Your task to perform on an android device: change notification settings in the gmail app Image 0: 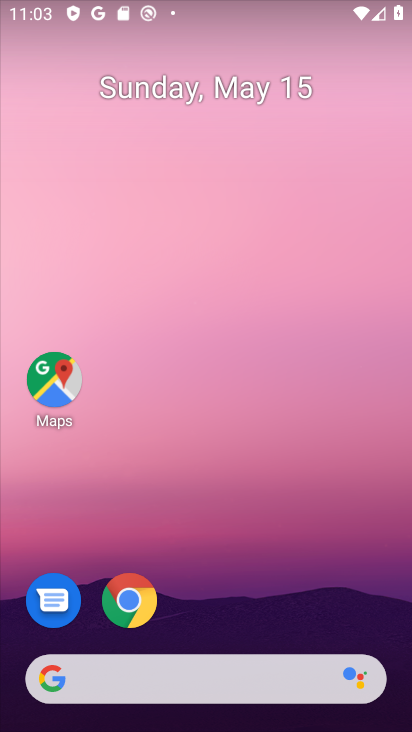
Step 0: drag from (214, 666) to (173, 65)
Your task to perform on an android device: change notification settings in the gmail app Image 1: 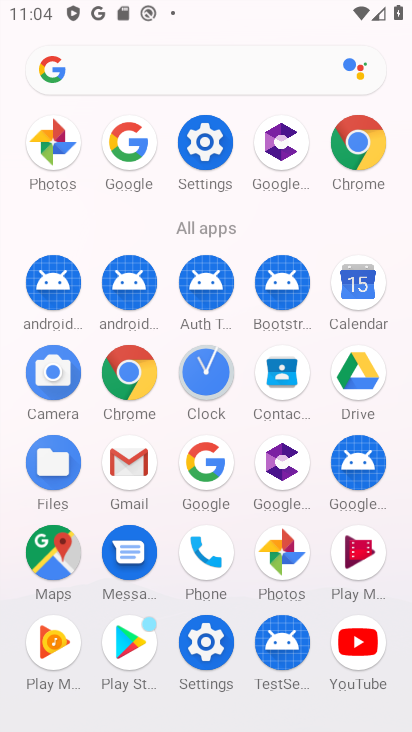
Step 1: click (143, 461)
Your task to perform on an android device: change notification settings in the gmail app Image 2: 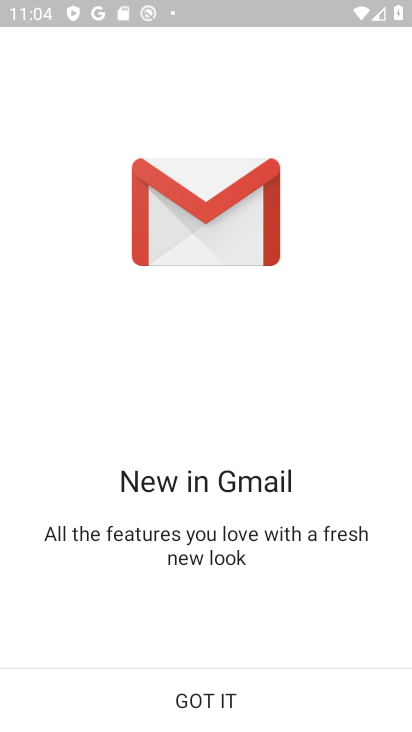
Step 2: click (219, 718)
Your task to perform on an android device: change notification settings in the gmail app Image 3: 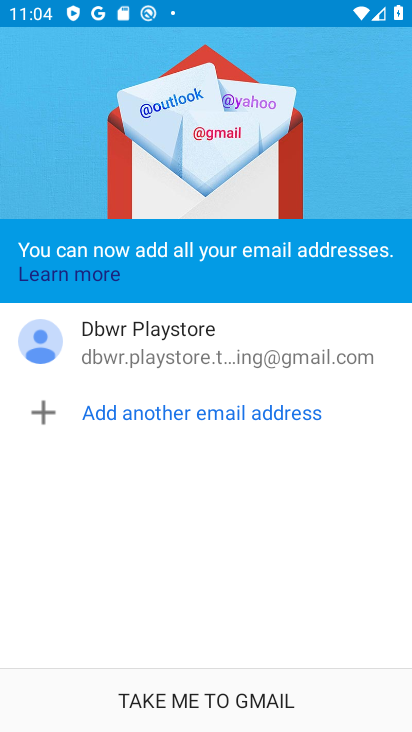
Step 3: click (157, 731)
Your task to perform on an android device: change notification settings in the gmail app Image 4: 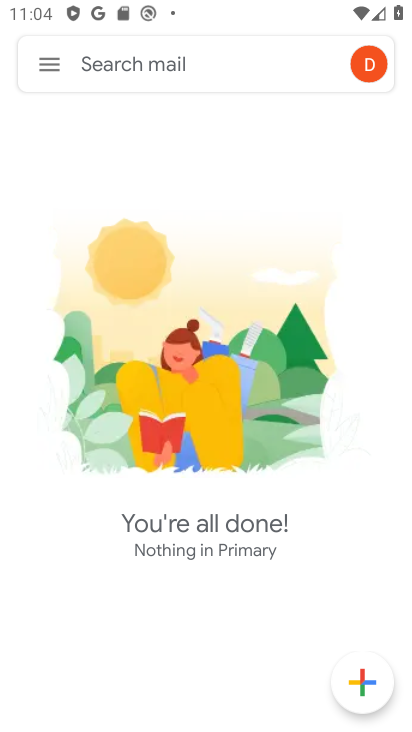
Step 4: click (37, 65)
Your task to perform on an android device: change notification settings in the gmail app Image 5: 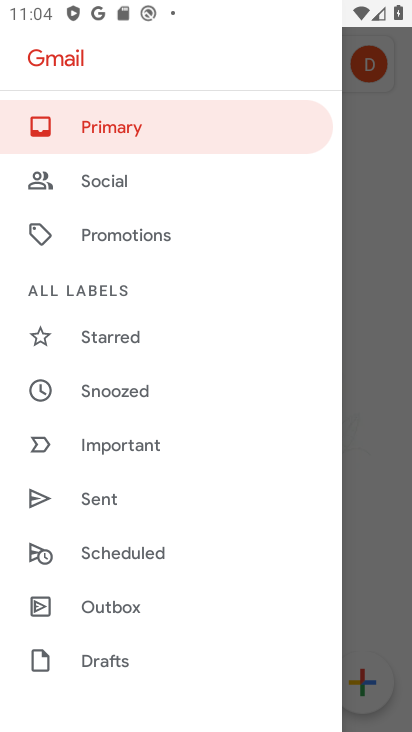
Step 5: drag from (156, 576) to (153, 111)
Your task to perform on an android device: change notification settings in the gmail app Image 6: 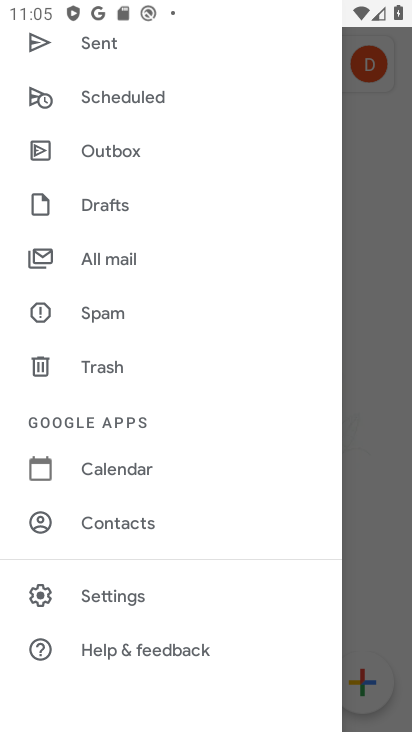
Step 6: click (116, 594)
Your task to perform on an android device: change notification settings in the gmail app Image 7: 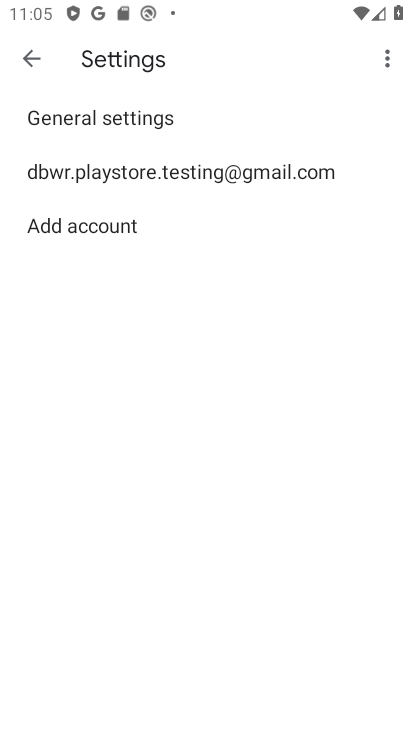
Step 7: click (104, 170)
Your task to perform on an android device: change notification settings in the gmail app Image 8: 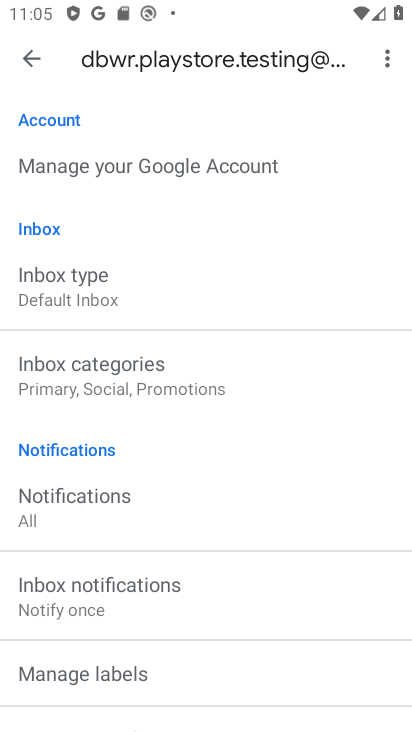
Step 8: click (107, 58)
Your task to perform on an android device: change notification settings in the gmail app Image 9: 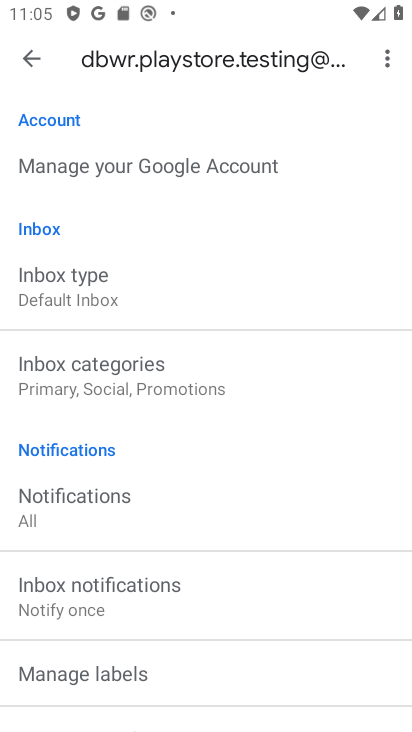
Step 9: drag from (141, 649) to (146, 304)
Your task to perform on an android device: change notification settings in the gmail app Image 10: 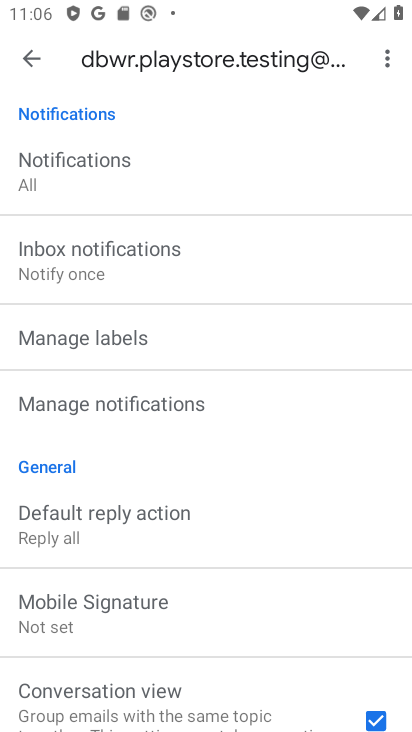
Step 10: click (158, 405)
Your task to perform on an android device: change notification settings in the gmail app Image 11: 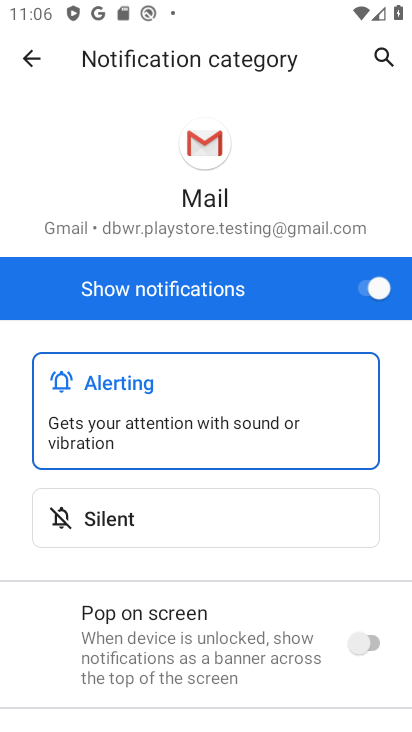
Step 11: click (147, 511)
Your task to perform on an android device: change notification settings in the gmail app Image 12: 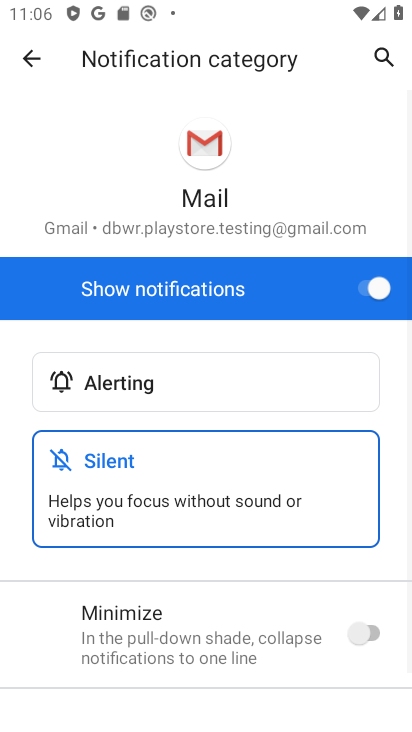
Step 12: task complete